Your task to perform on an android device: change the clock display to digital Image 0: 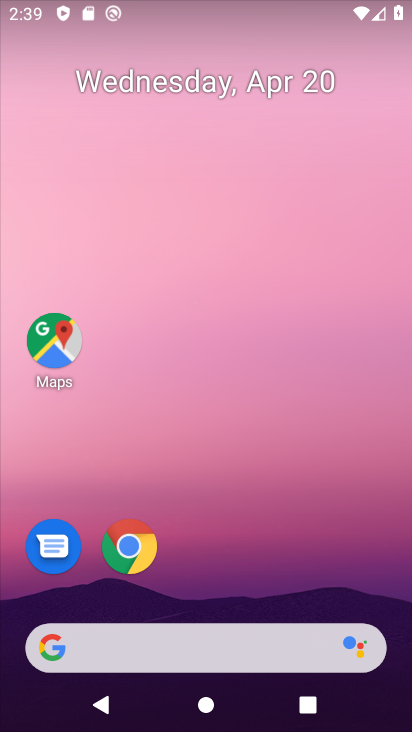
Step 0: click (132, 548)
Your task to perform on an android device: change the clock display to digital Image 1: 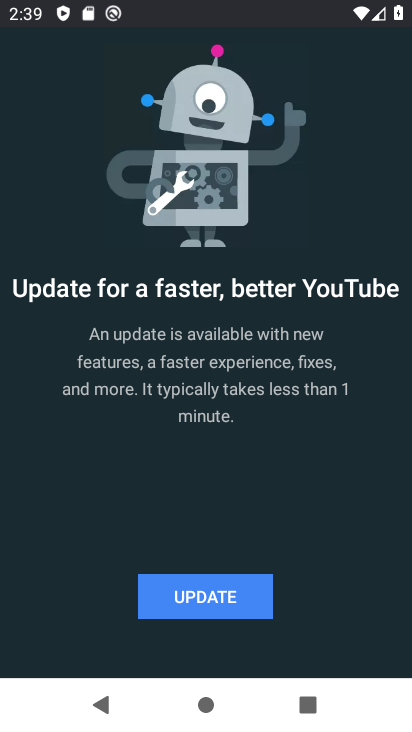
Step 1: press home button
Your task to perform on an android device: change the clock display to digital Image 2: 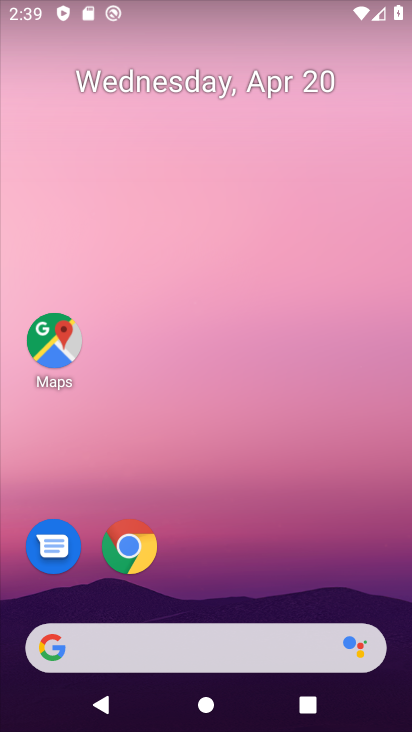
Step 2: drag from (356, 435) to (382, 80)
Your task to perform on an android device: change the clock display to digital Image 3: 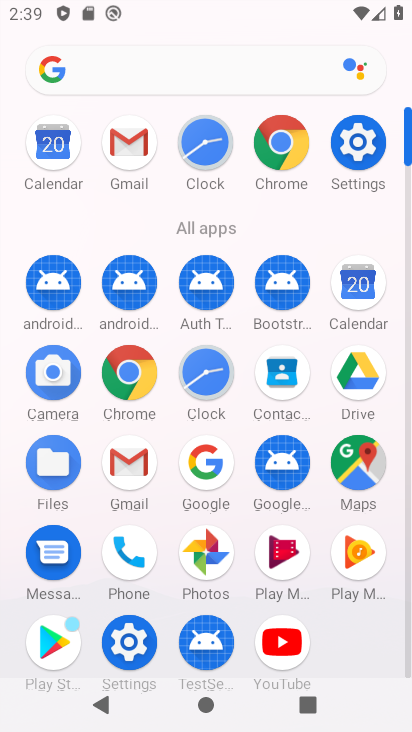
Step 3: click (213, 380)
Your task to perform on an android device: change the clock display to digital Image 4: 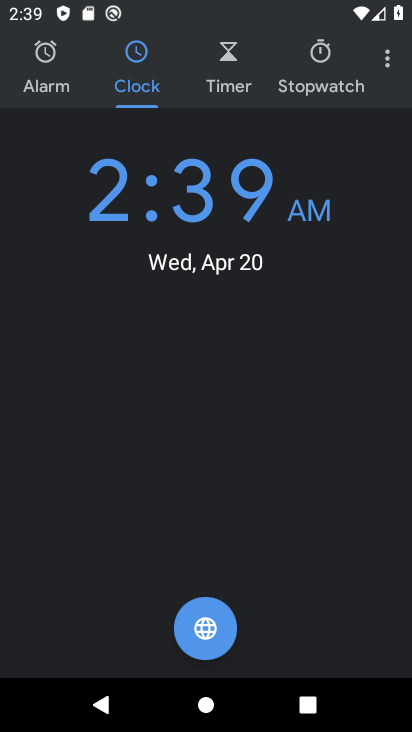
Step 4: click (389, 67)
Your task to perform on an android device: change the clock display to digital Image 5: 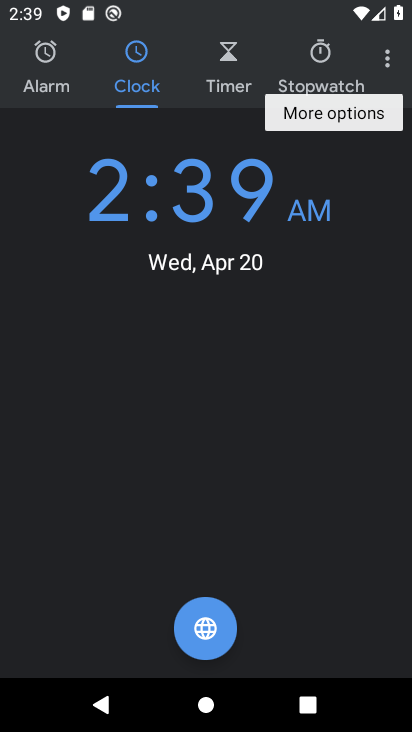
Step 5: click (387, 63)
Your task to perform on an android device: change the clock display to digital Image 6: 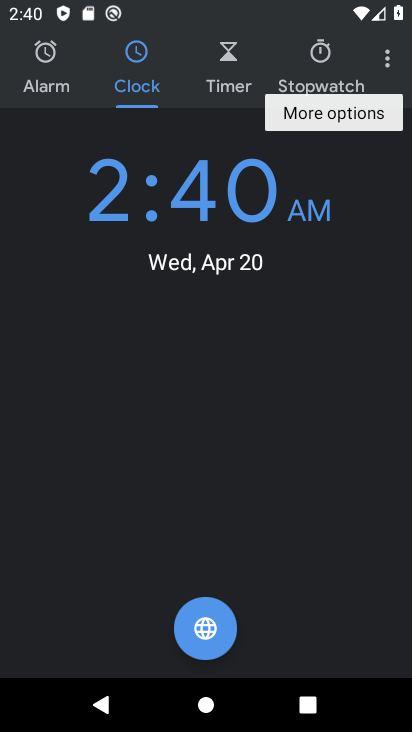
Step 6: click (384, 66)
Your task to perform on an android device: change the clock display to digital Image 7: 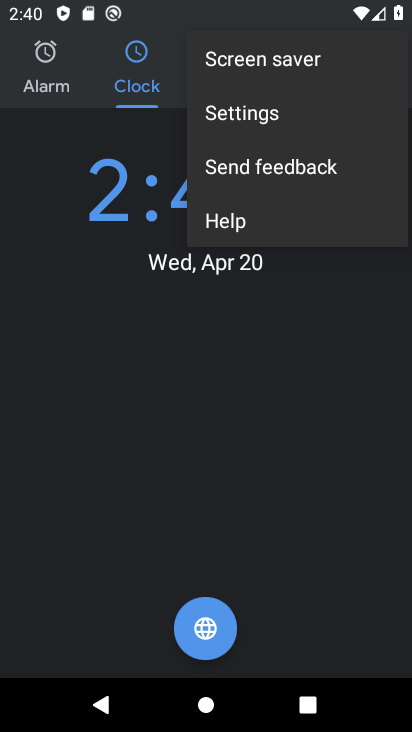
Step 7: click (258, 112)
Your task to perform on an android device: change the clock display to digital Image 8: 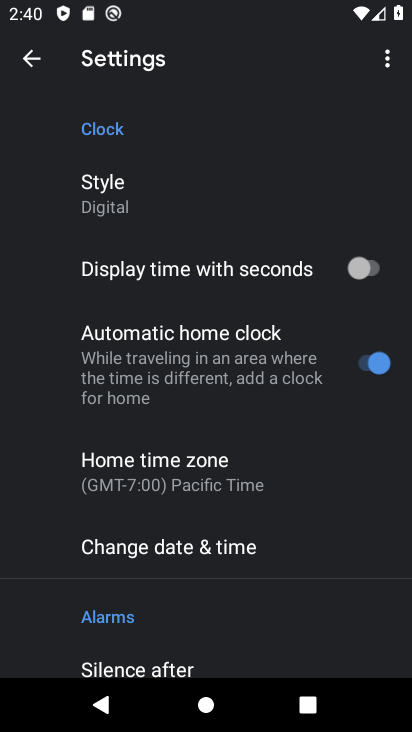
Step 8: task complete